Your task to perform on an android device: Open accessibility settings Image 0: 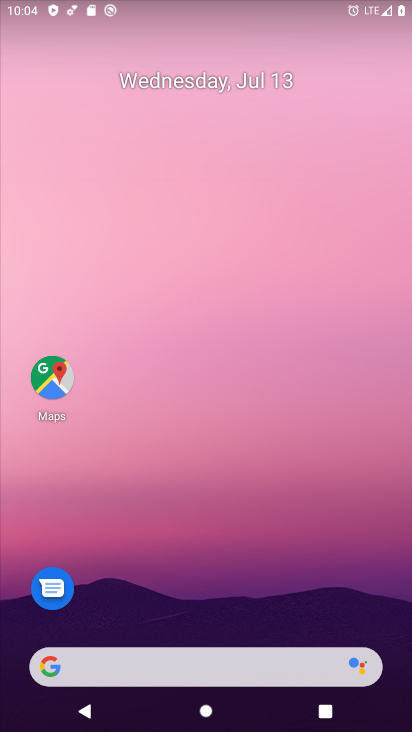
Step 0: drag from (111, 704) to (251, 32)
Your task to perform on an android device: Open accessibility settings Image 1: 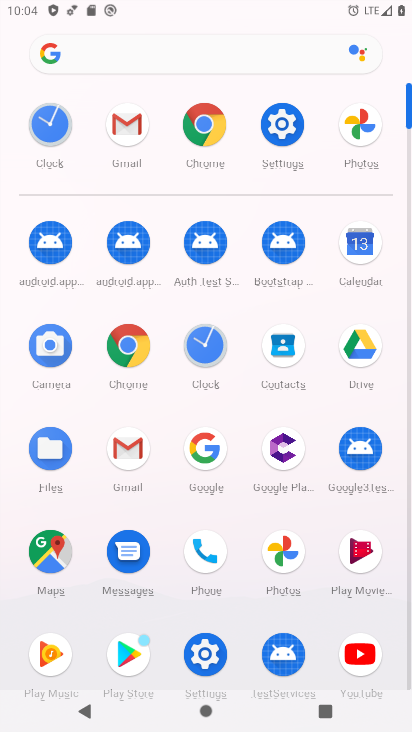
Step 1: click (263, 124)
Your task to perform on an android device: Open accessibility settings Image 2: 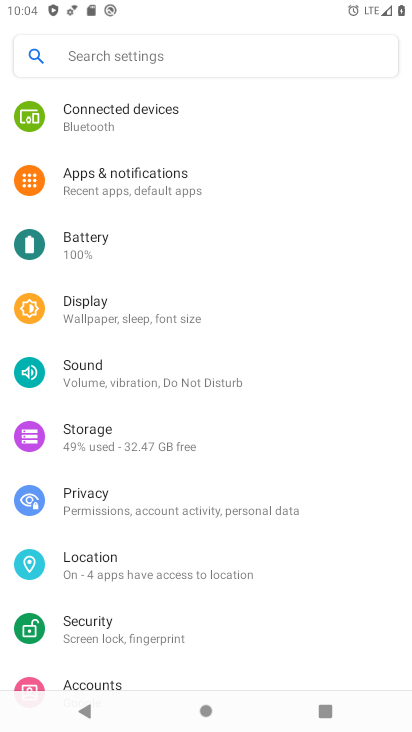
Step 2: drag from (302, 626) to (229, 1)
Your task to perform on an android device: Open accessibility settings Image 3: 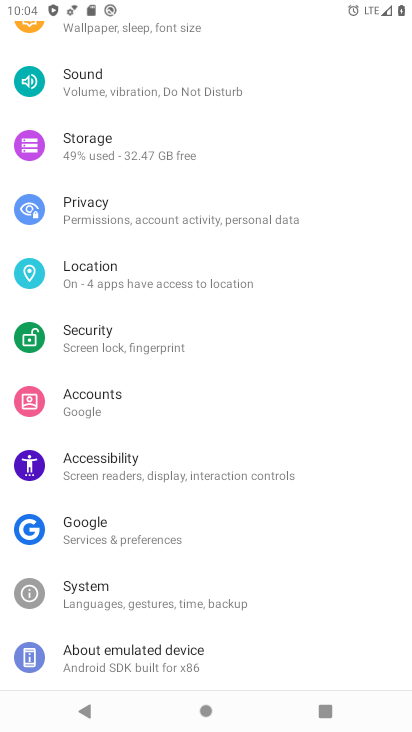
Step 3: click (154, 472)
Your task to perform on an android device: Open accessibility settings Image 4: 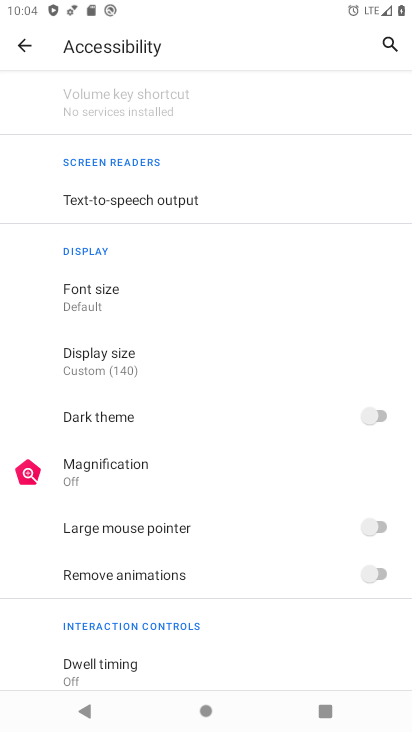
Step 4: task complete